Your task to perform on an android device: change alarm snooze length Image 0: 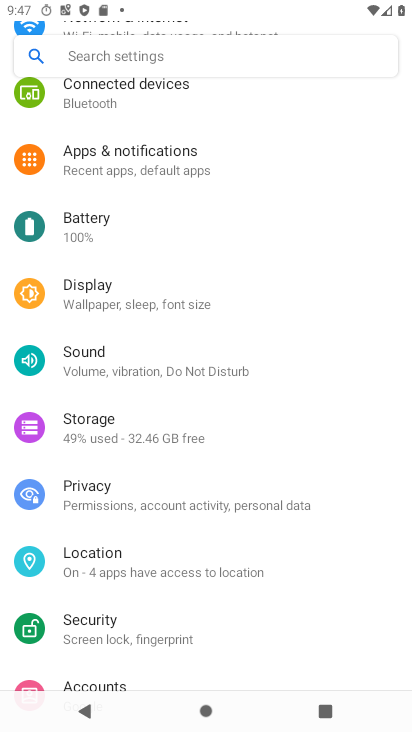
Step 0: press home button
Your task to perform on an android device: change alarm snooze length Image 1: 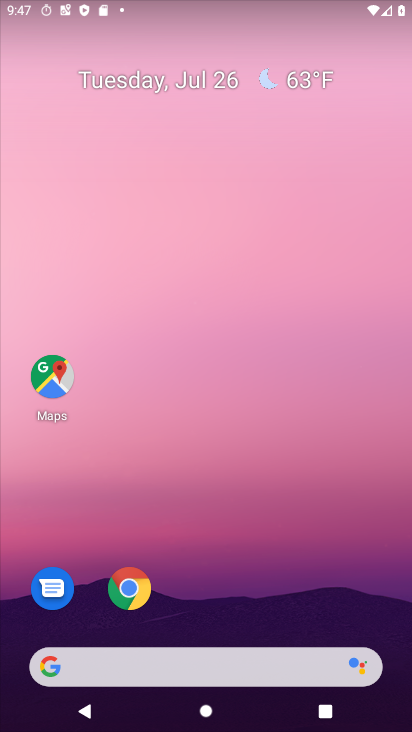
Step 1: drag from (200, 629) to (243, 159)
Your task to perform on an android device: change alarm snooze length Image 2: 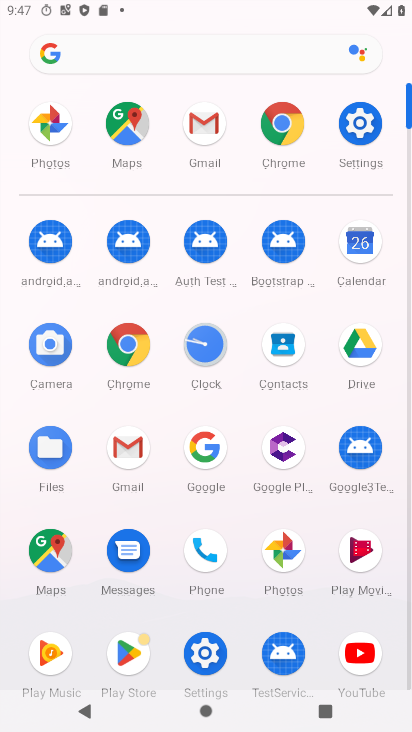
Step 2: click (209, 341)
Your task to perform on an android device: change alarm snooze length Image 3: 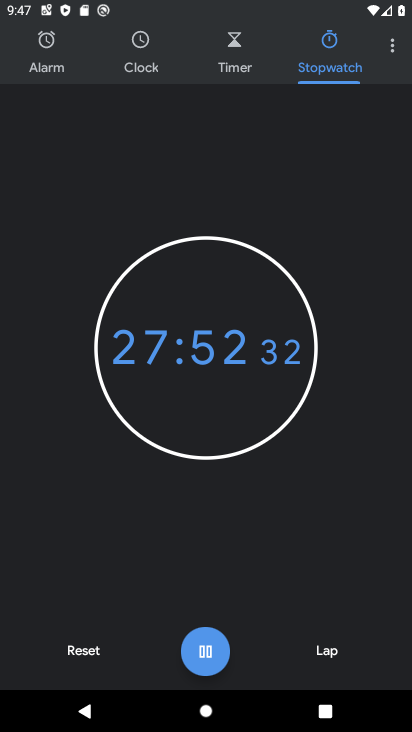
Step 3: click (401, 45)
Your task to perform on an android device: change alarm snooze length Image 4: 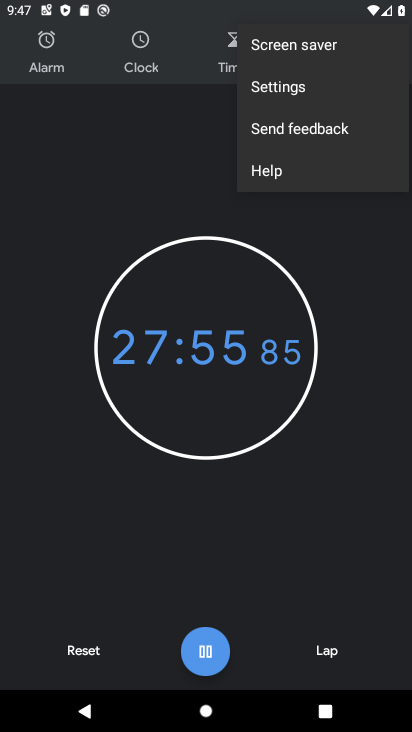
Step 4: click (315, 79)
Your task to perform on an android device: change alarm snooze length Image 5: 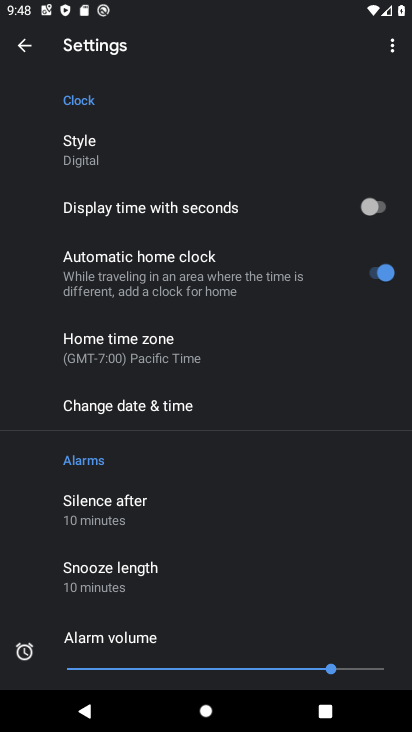
Step 5: click (143, 588)
Your task to perform on an android device: change alarm snooze length Image 6: 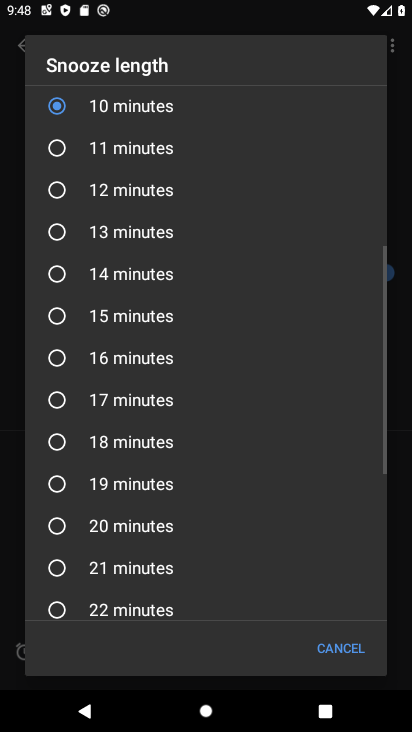
Step 6: click (143, 588)
Your task to perform on an android device: change alarm snooze length Image 7: 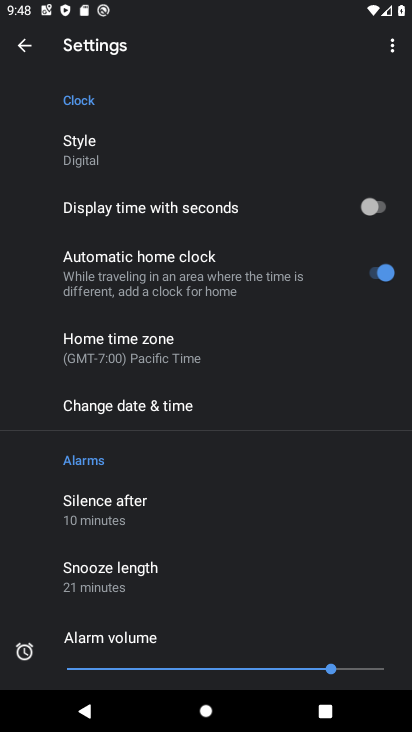
Step 7: task complete